Your task to perform on an android device: create a new album in the google photos Image 0: 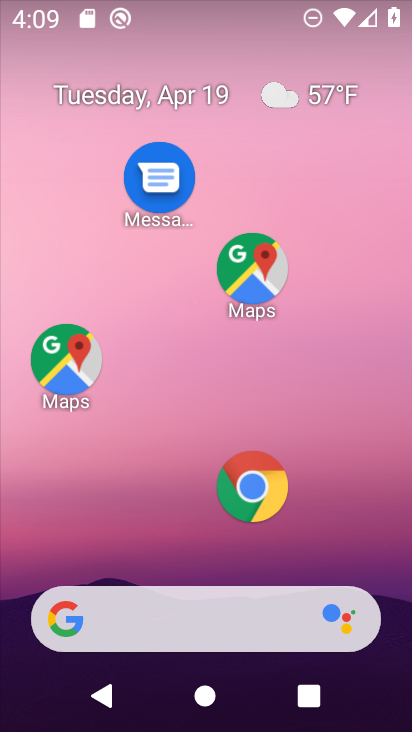
Step 0: drag from (294, 523) to (246, 106)
Your task to perform on an android device: create a new album in the google photos Image 1: 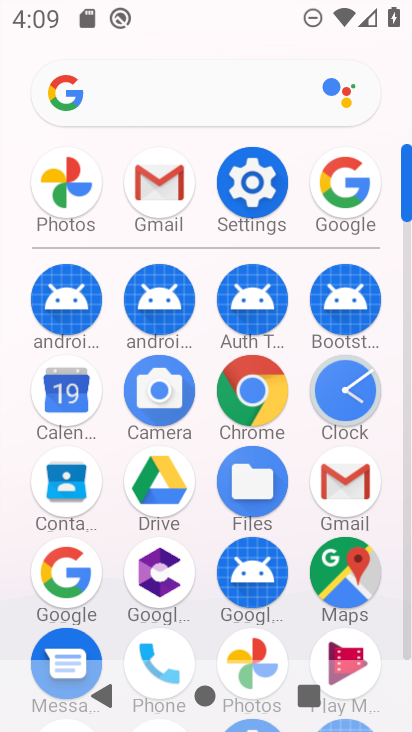
Step 1: click (81, 195)
Your task to perform on an android device: create a new album in the google photos Image 2: 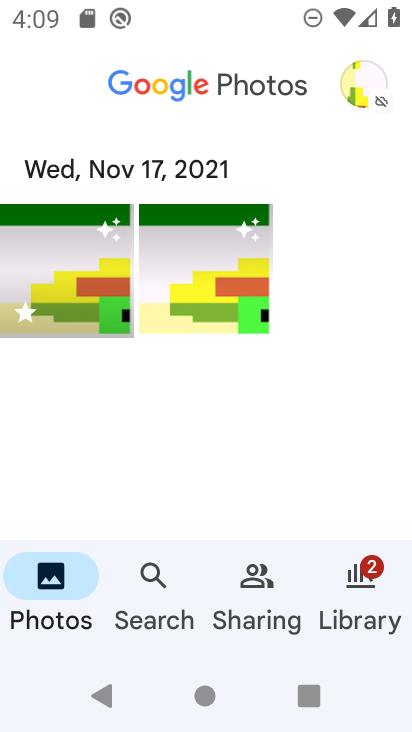
Step 2: click (353, 588)
Your task to perform on an android device: create a new album in the google photos Image 3: 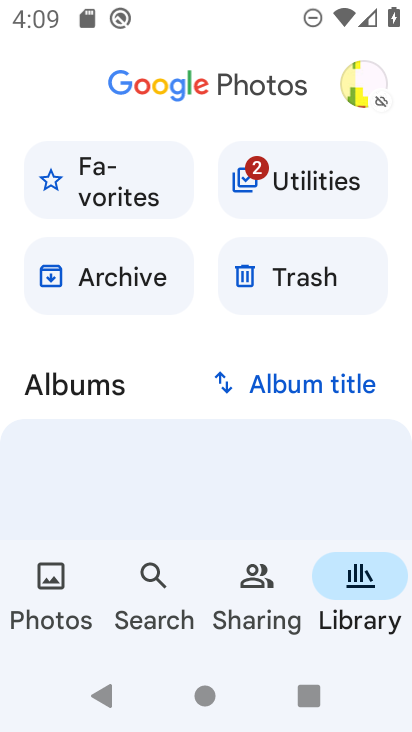
Step 3: drag from (230, 493) to (203, 201)
Your task to perform on an android device: create a new album in the google photos Image 4: 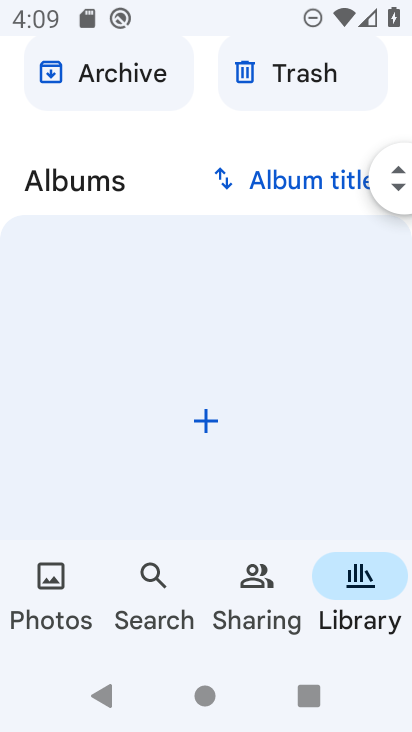
Step 4: click (190, 428)
Your task to perform on an android device: create a new album in the google photos Image 5: 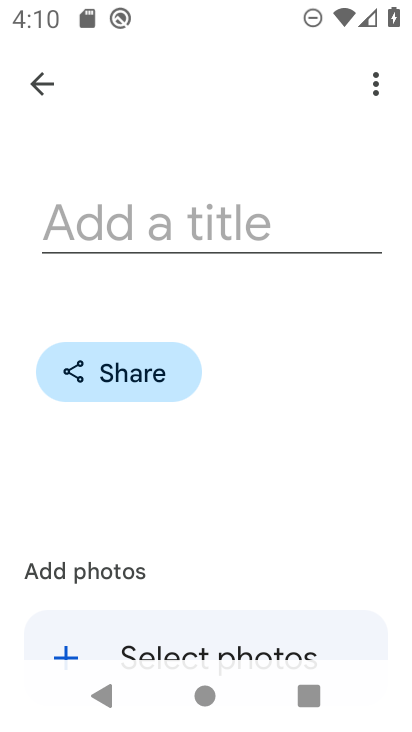
Step 5: click (162, 216)
Your task to perform on an android device: create a new album in the google photos Image 6: 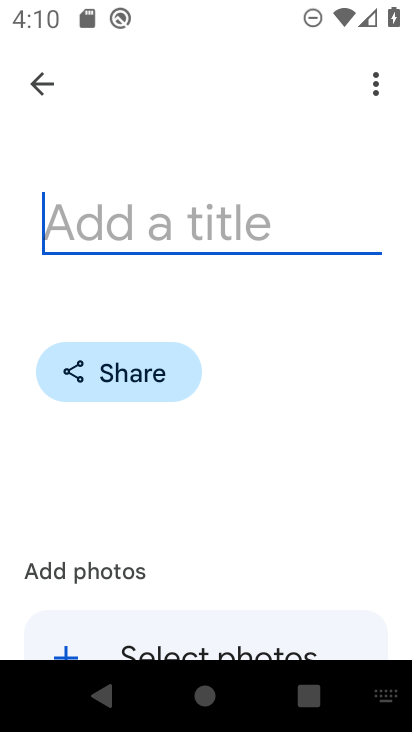
Step 6: click (161, 227)
Your task to perform on an android device: create a new album in the google photos Image 7: 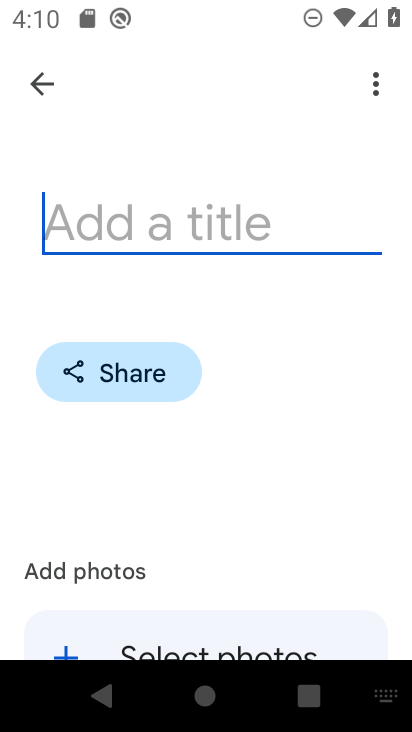
Step 7: type "vdbcb"
Your task to perform on an android device: create a new album in the google photos Image 8: 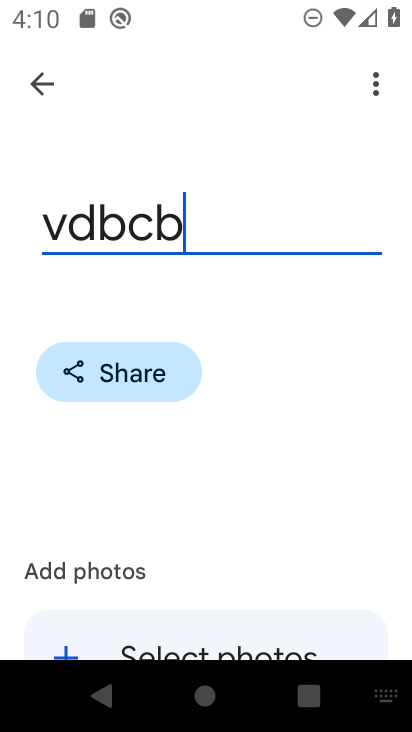
Step 8: type ""
Your task to perform on an android device: create a new album in the google photos Image 9: 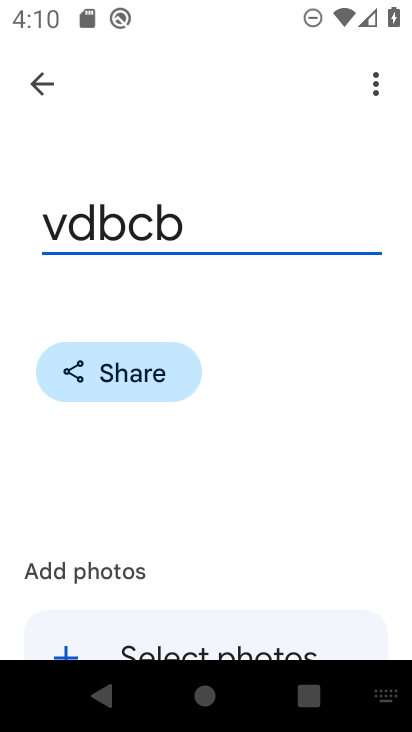
Step 9: drag from (288, 540) to (268, 238)
Your task to perform on an android device: create a new album in the google photos Image 10: 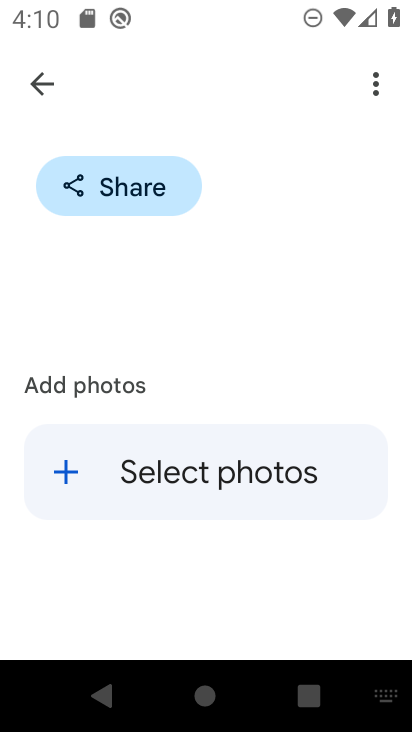
Step 10: click (226, 473)
Your task to perform on an android device: create a new album in the google photos Image 11: 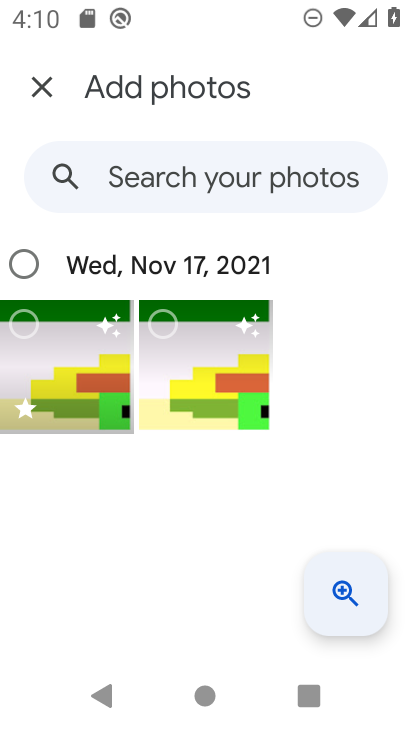
Step 11: click (25, 336)
Your task to perform on an android device: create a new album in the google photos Image 12: 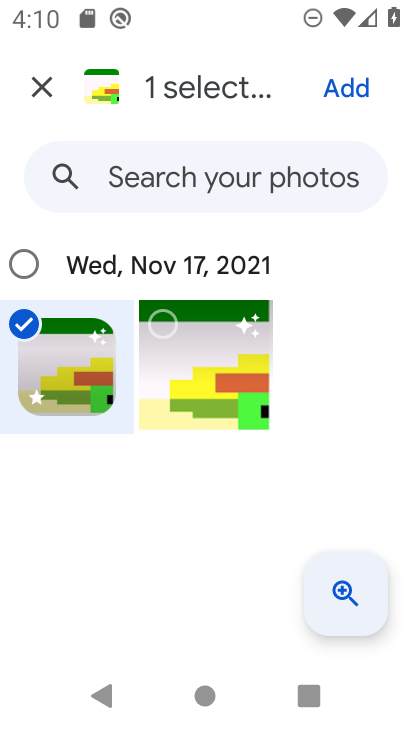
Step 12: click (373, 100)
Your task to perform on an android device: create a new album in the google photos Image 13: 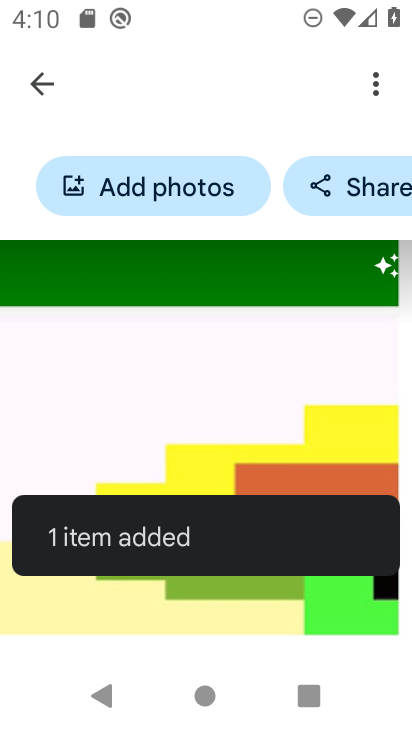
Step 13: task complete